Your task to perform on an android device: Show me the alarms in the clock app Image 0: 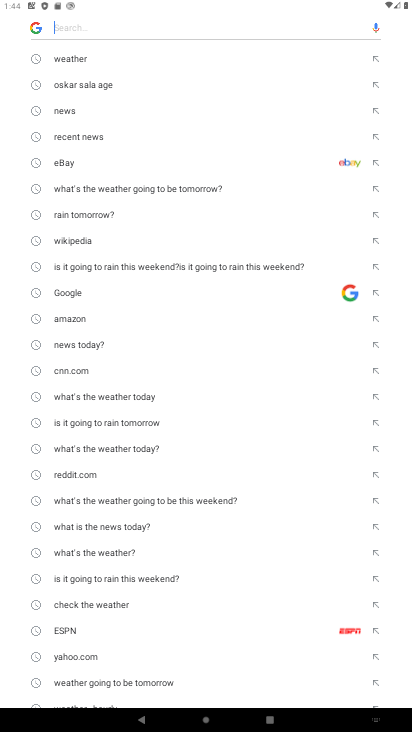
Step 0: press back button
Your task to perform on an android device: Show me the alarms in the clock app Image 1: 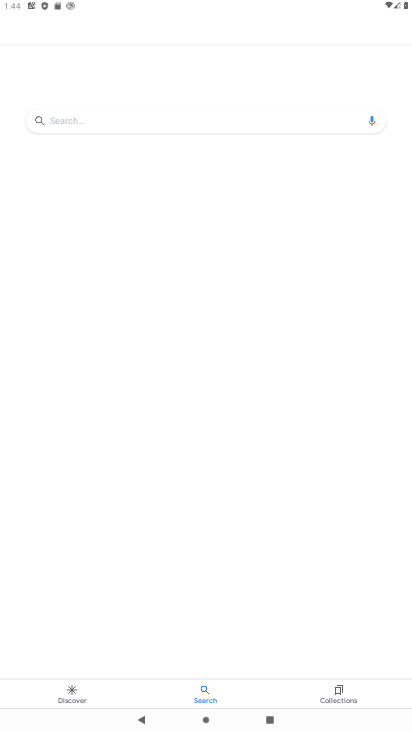
Step 1: press back button
Your task to perform on an android device: Show me the alarms in the clock app Image 2: 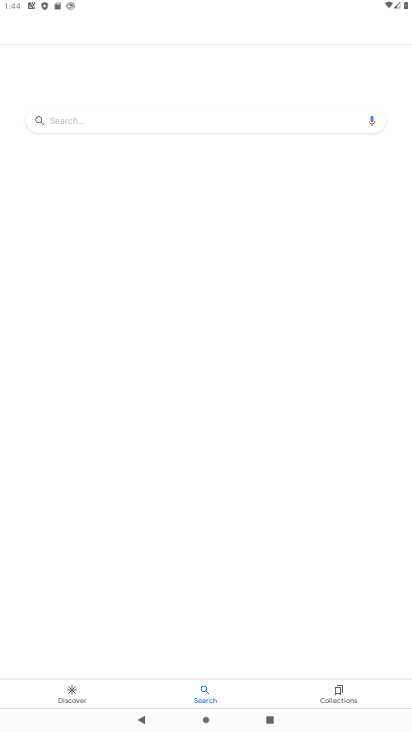
Step 2: press back button
Your task to perform on an android device: Show me the alarms in the clock app Image 3: 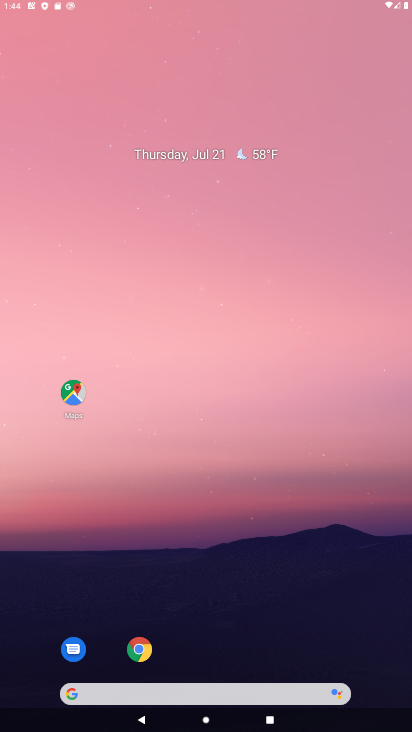
Step 3: press back button
Your task to perform on an android device: Show me the alarms in the clock app Image 4: 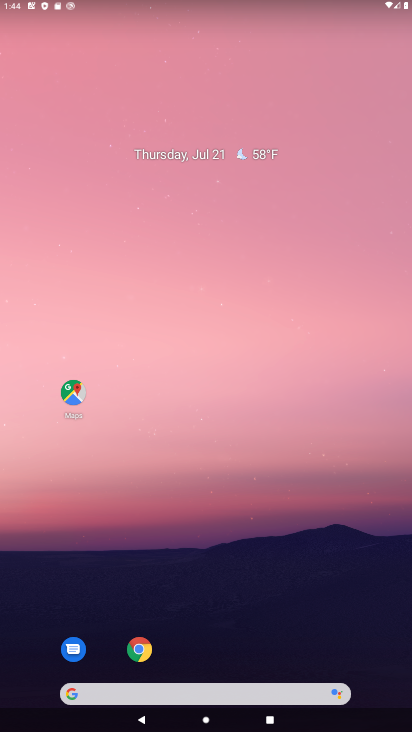
Step 4: drag from (231, 653) to (189, 31)
Your task to perform on an android device: Show me the alarms in the clock app Image 5: 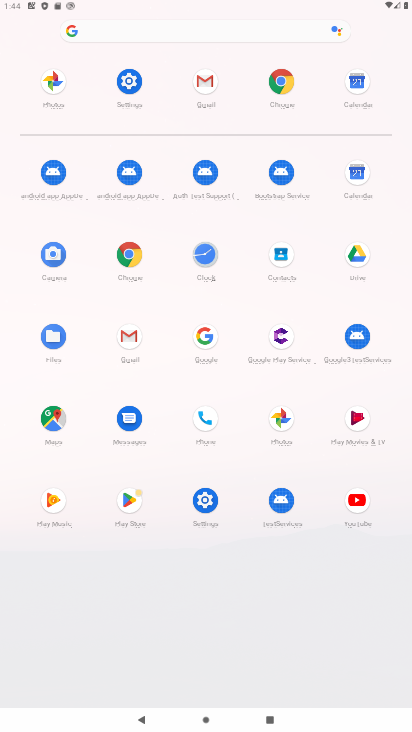
Step 5: click (205, 264)
Your task to perform on an android device: Show me the alarms in the clock app Image 6: 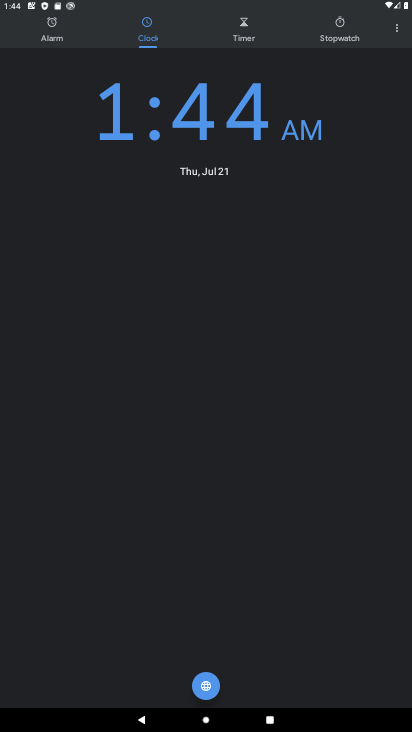
Step 6: click (67, 42)
Your task to perform on an android device: Show me the alarms in the clock app Image 7: 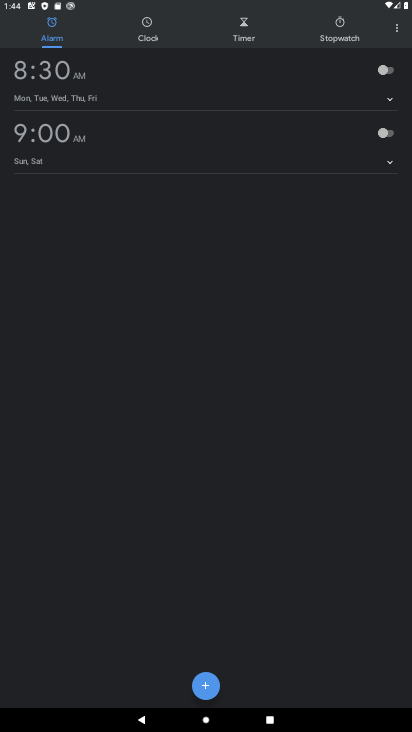
Step 7: click (382, 86)
Your task to perform on an android device: Show me the alarms in the clock app Image 8: 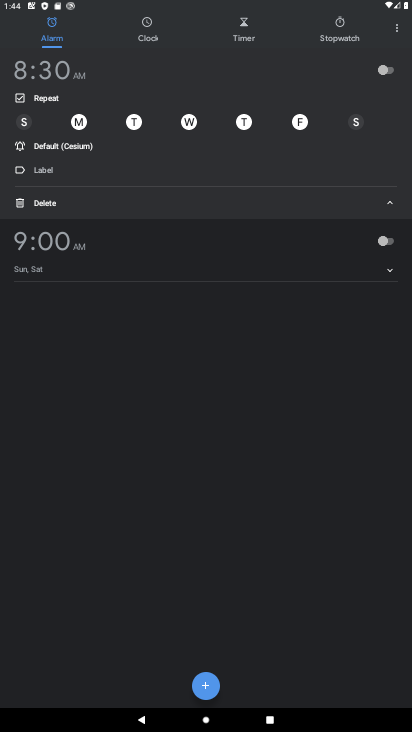
Step 8: task complete